Your task to perform on an android device: Open settings on Google Maps Image 0: 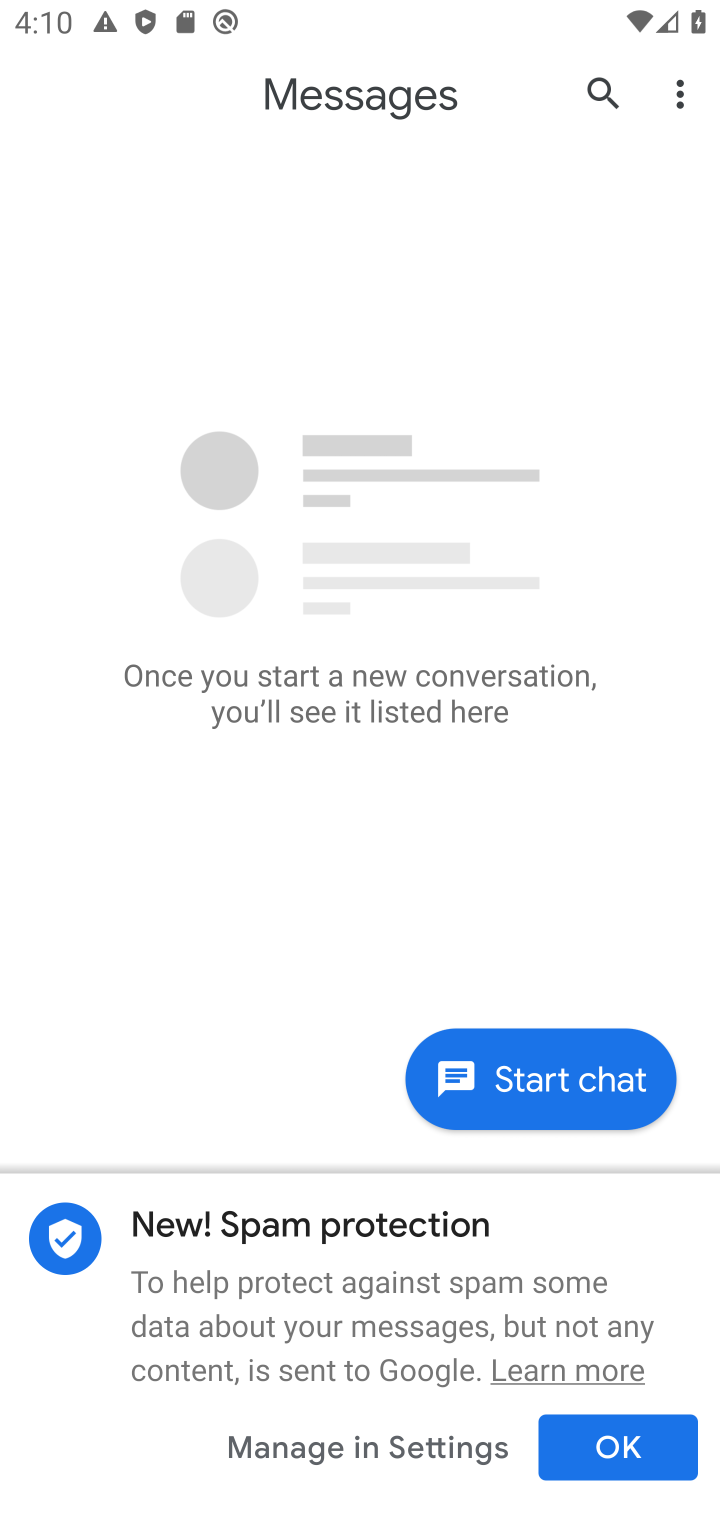
Step 0: press home button
Your task to perform on an android device: Open settings on Google Maps Image 1: 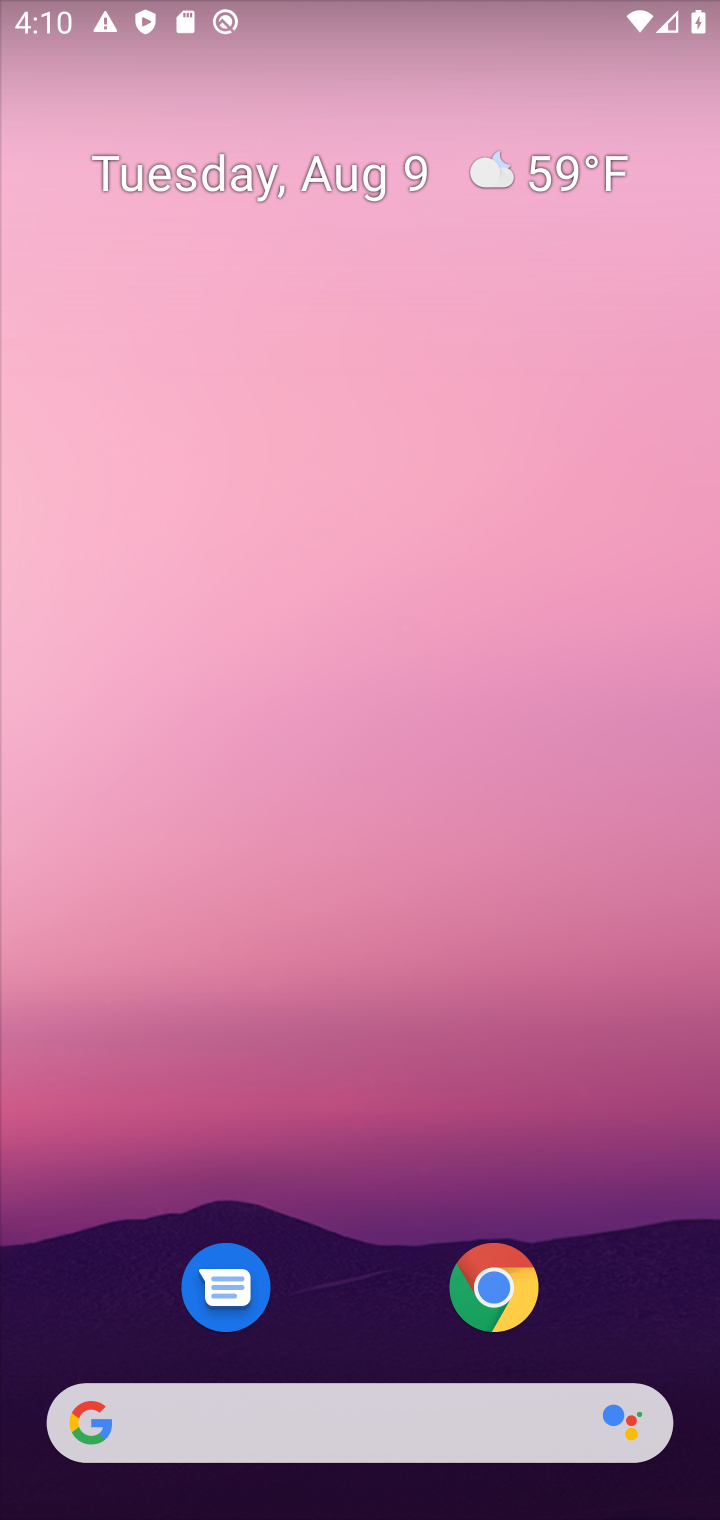
Step 1: drag from (398, 763) to (376, 280)
Your task to perform on an android device: Open settings on Google Maps Image 2: 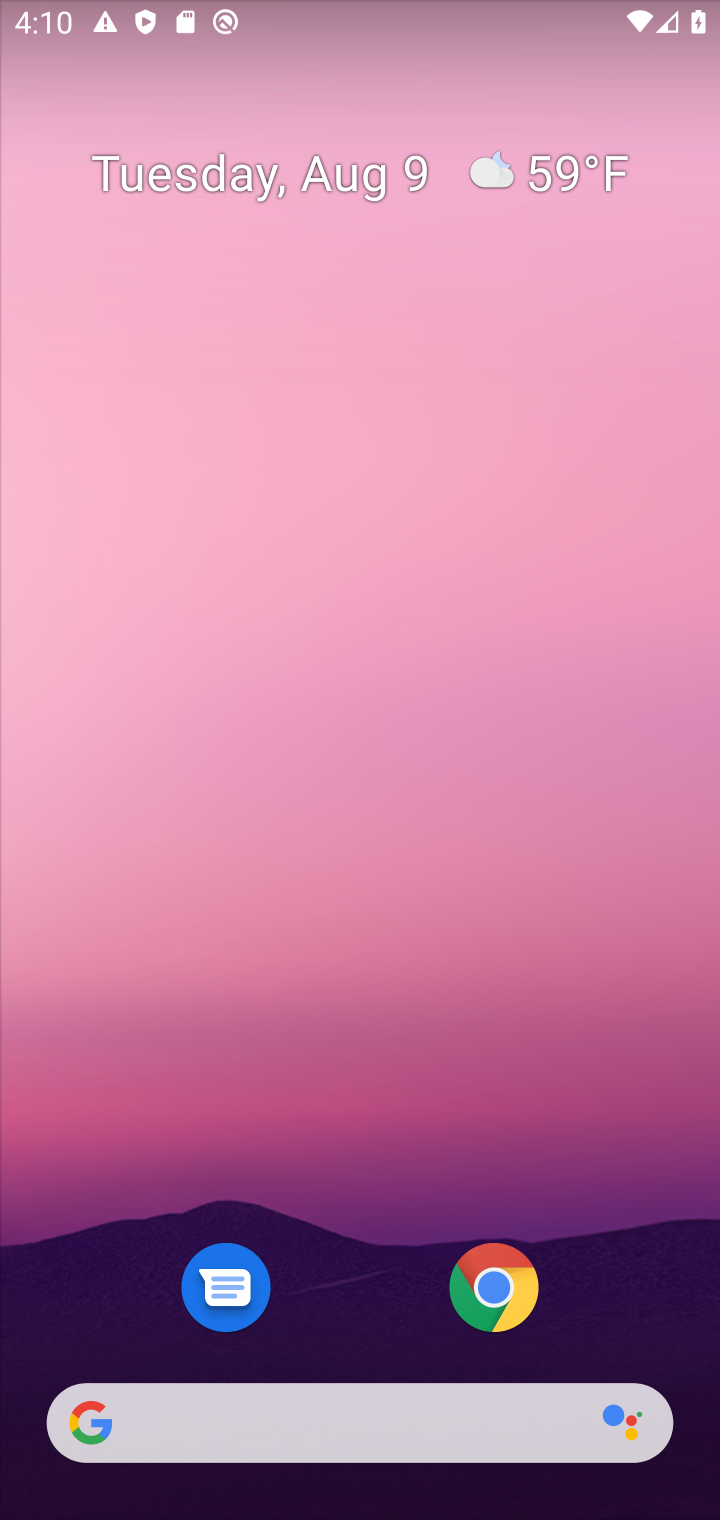
Step 2: drag from (348, 724) to (377, 178)
Your task to perform on an android device: Open settings on Google Maps Image 3: 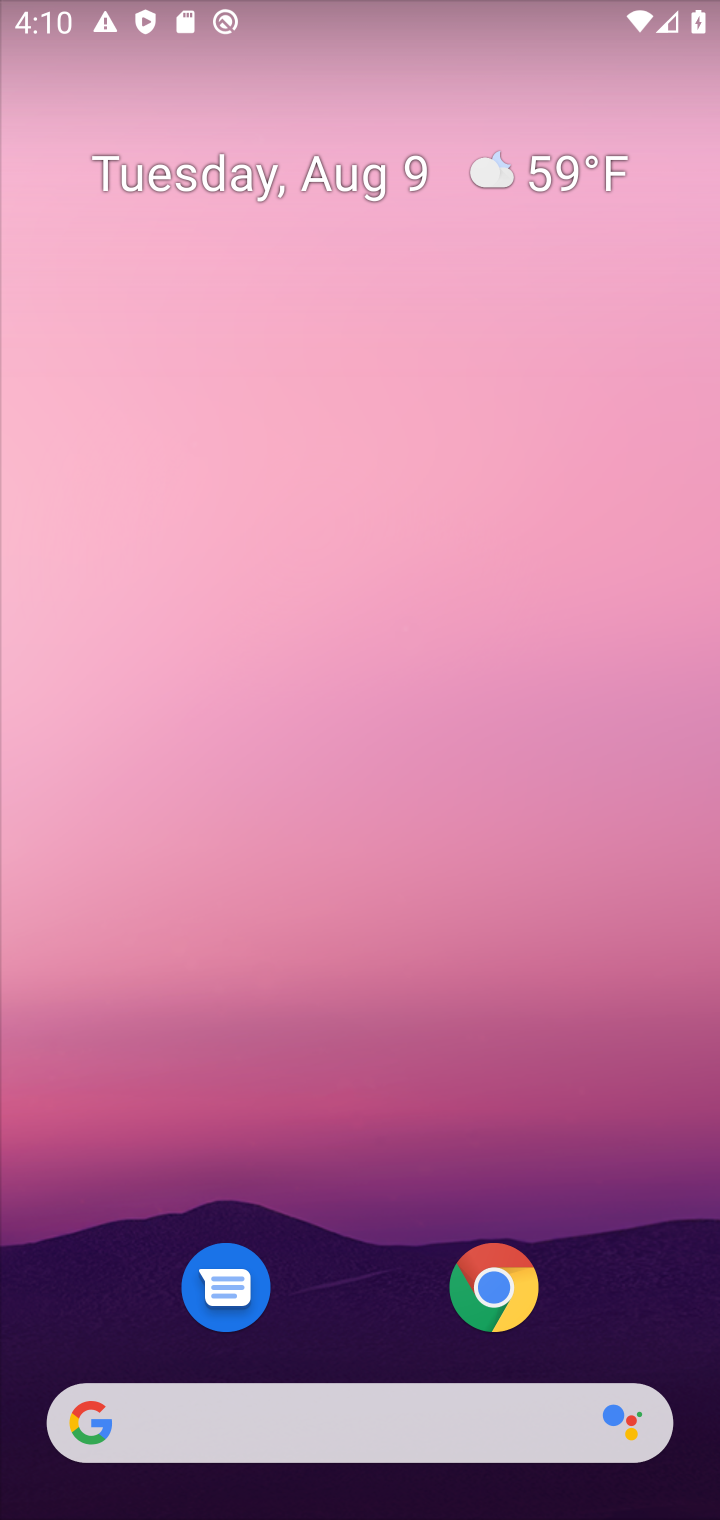
Step 3: drag from (355, 1232) to (352, 141)
Your task to perform on an android device: Open settings on Google Maps Image 4: 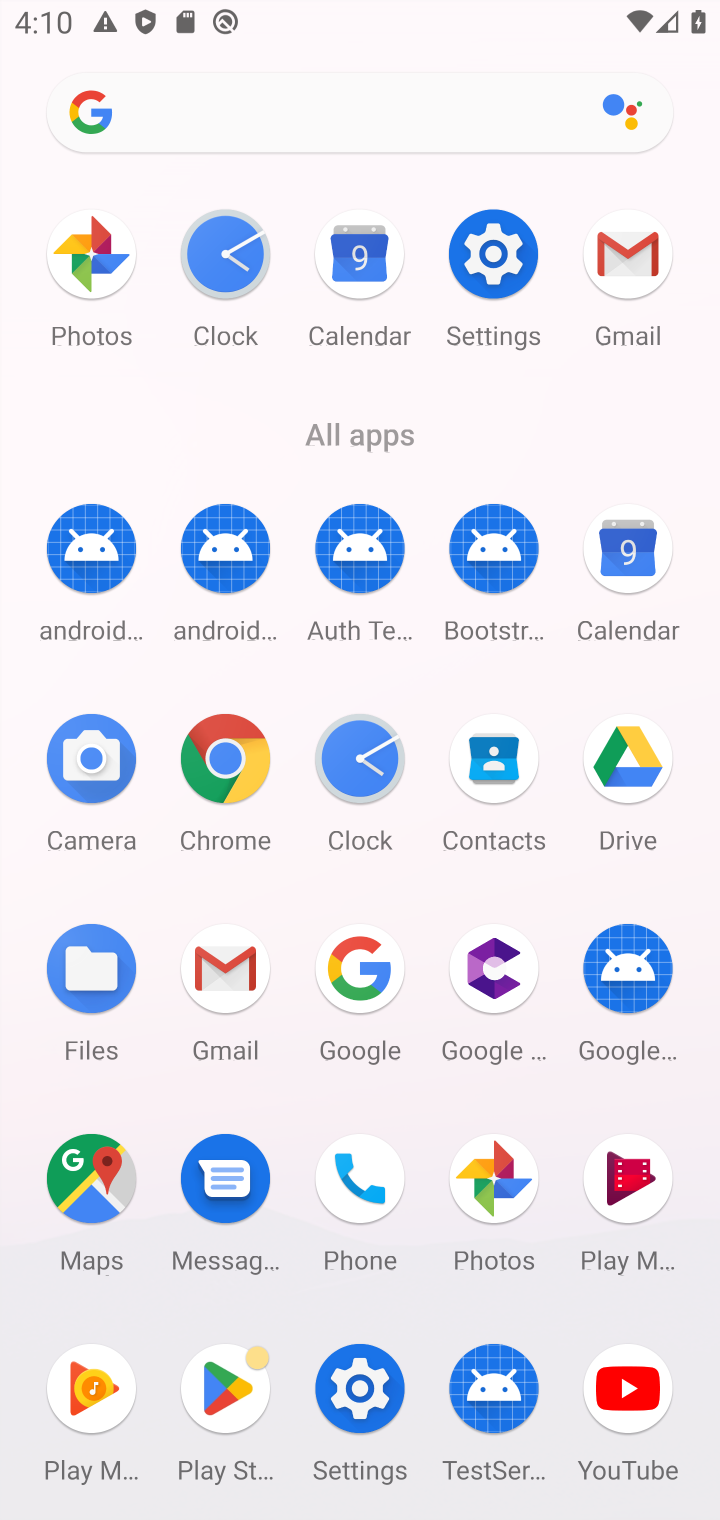
Step 4: click (78, 1162)
Your task to perform on an android device: Open settings on Google Maps Image 5: 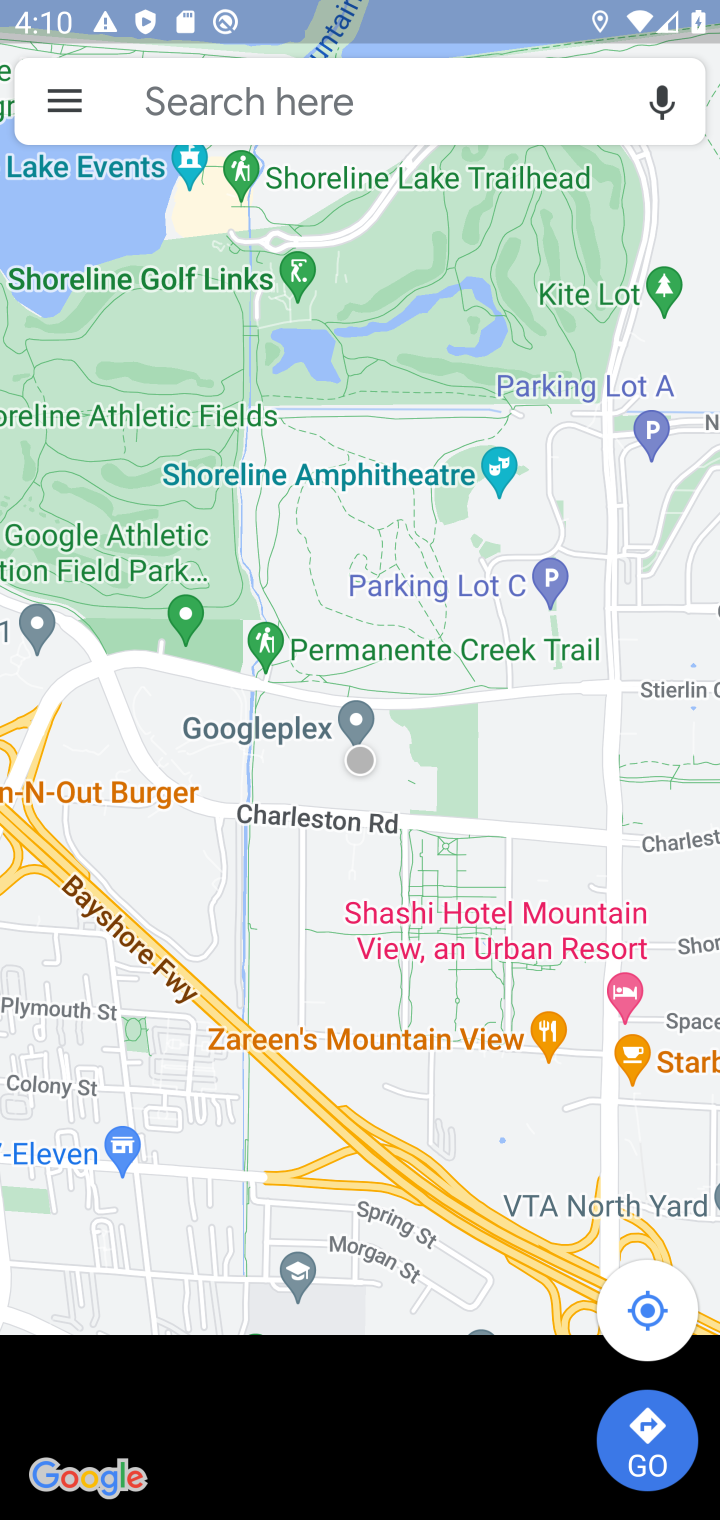
Step 5: task complete